Your task to perform on an android device: Search for Mexican restaurants on Maps Image 0: 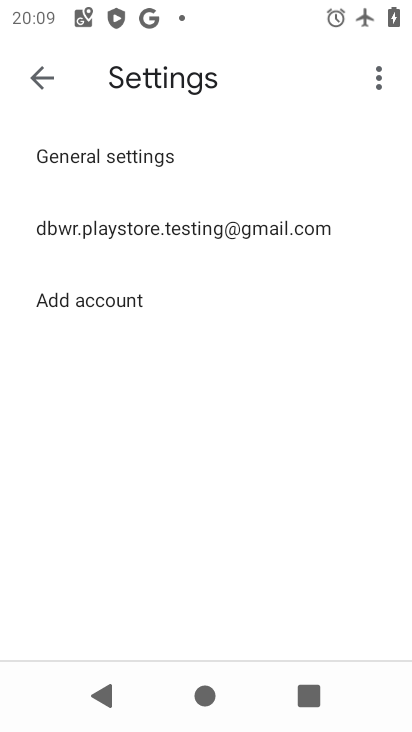
Step 0: press home button
Your task to perform on an android device: Search for Mexican restaurants on Maps Image 1: 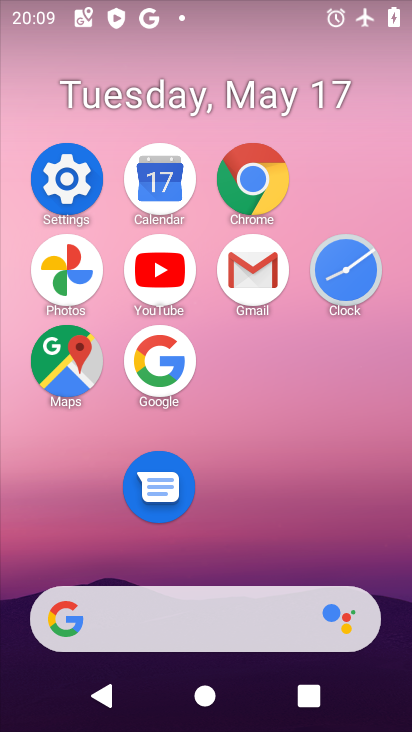
Step 1: click (83, 366)
Your task to perform on an android device: Search for Mexican restaurants on Maps Image 2: 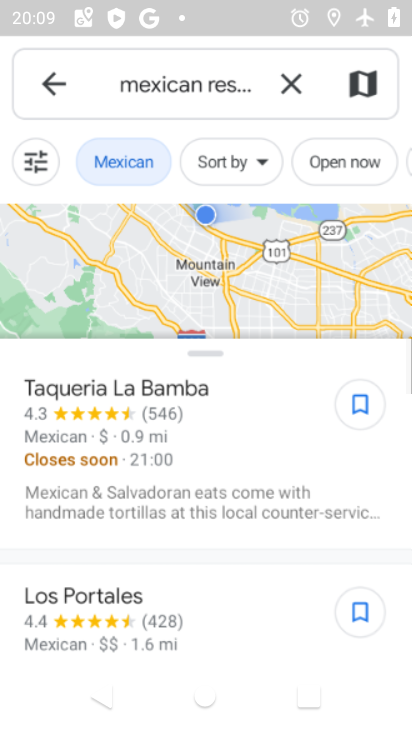
Step 2: task complete